Your task to perform on an android device: Open Chrome and go to settings Image 0: 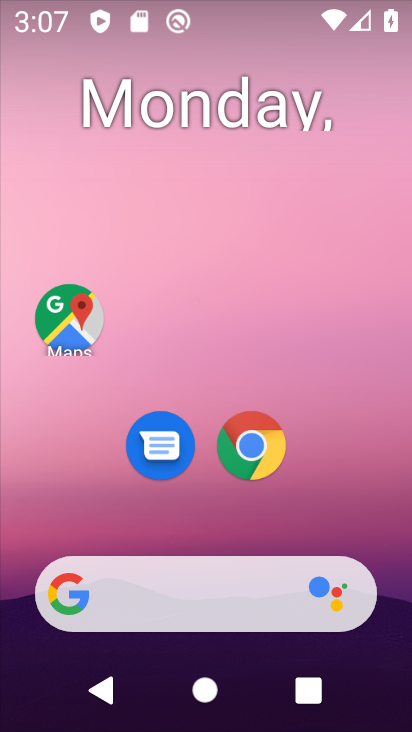
Step 0: click (226, 447)
Your task to perform on an android device: Open Chrome and go to settings Image 1: 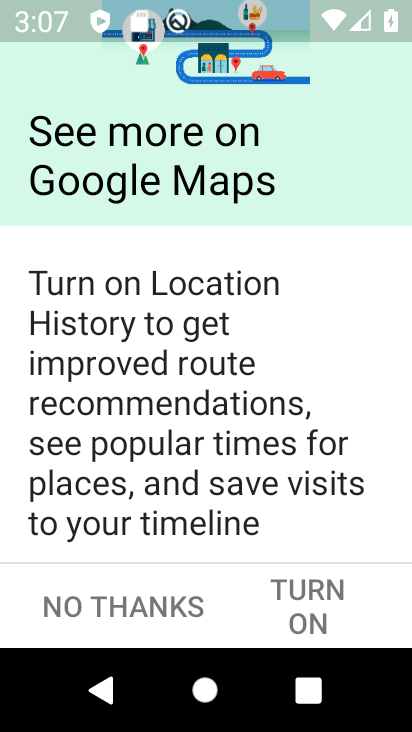
Step 1: click (133, 611)
Your task to perform on an android device: Open Chrome and go to settings Image 2: 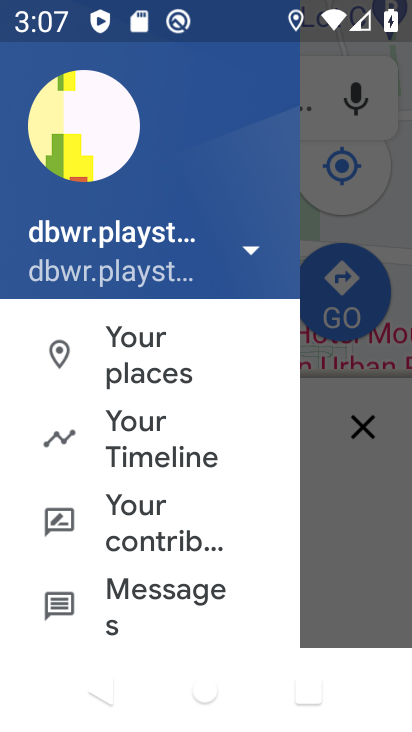
Step 2: drag from (153, 509) to (156, 209)
Your task to perform on an android device: Open Chrome and go to settings Image 3: 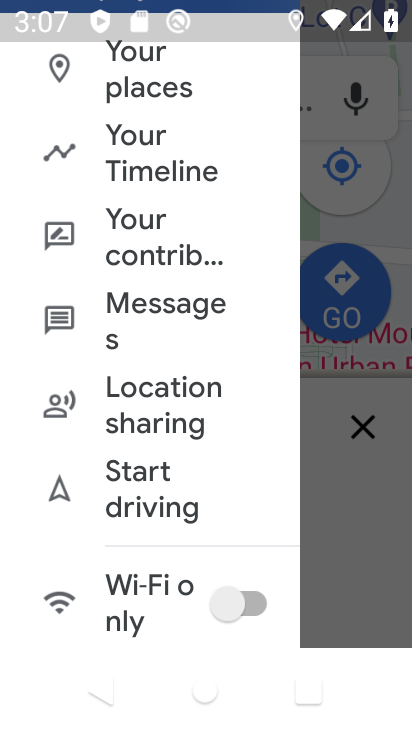
Step 3: drag from (165, 559) to (227, 170)
Your task to perform on an android device: Open Chrome and go to settings Image 4: 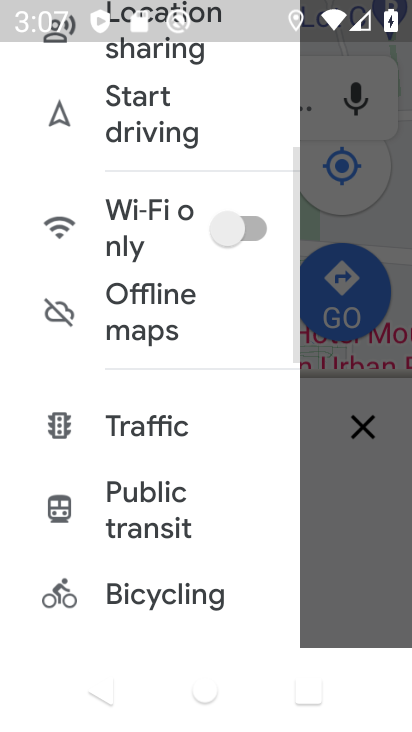
Step 4: drag from (178, 566) to (213, 295)
Your task to perform on an android device: Open Chrome and go to settings Image 5: 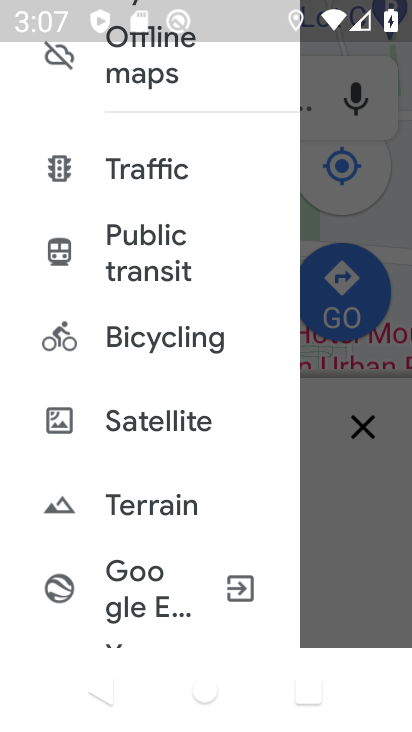
Step 5: drag from (137, 585) to (205, 247)
Your task to perform on an android device: Open Chrome and go to settings Image 6: 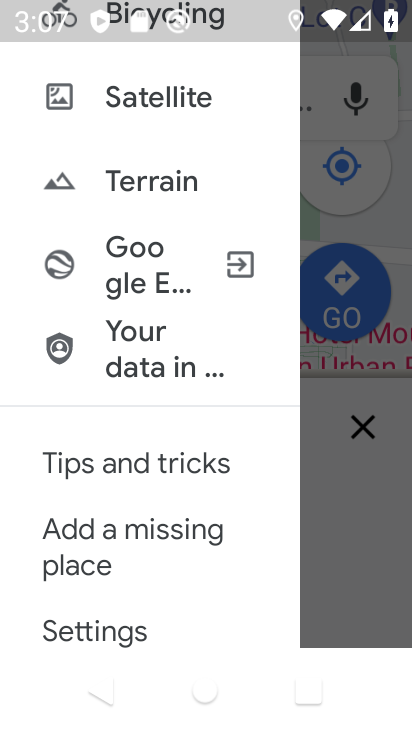
Step 6: drag from (104, 618) to (145, 439)
Your task to perform on an android device: Open Chrome and go to settings Image 7: 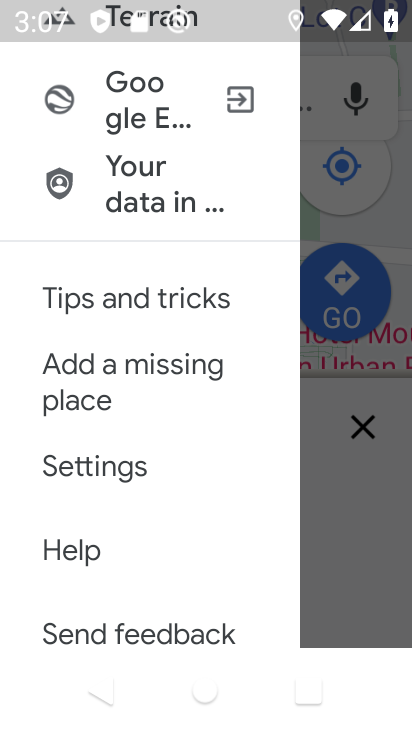
Step 7: click (139, 439)
Your task to perform on an android device: Open Chrome and go to settings Image 8: 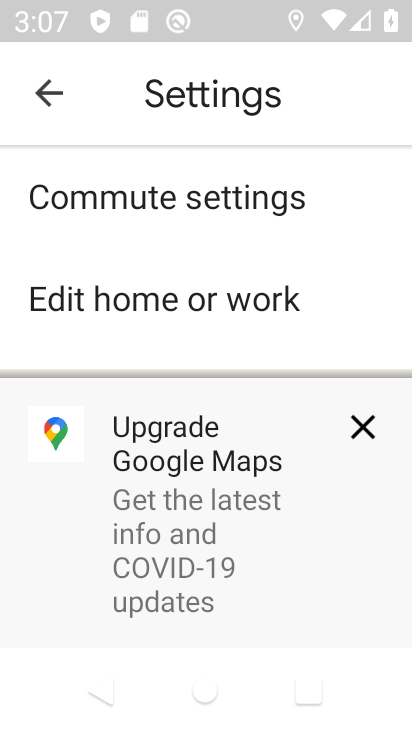
Step 8: click (367, 425)
Your task to perform on an android device: Open Chrome and go to settings Image 9: 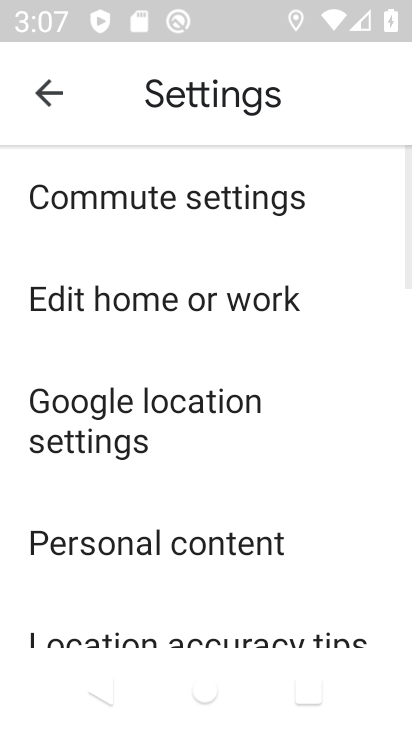
Step 9: task complete